Your task to perform on an android device: change the clock display to analog Image 0: 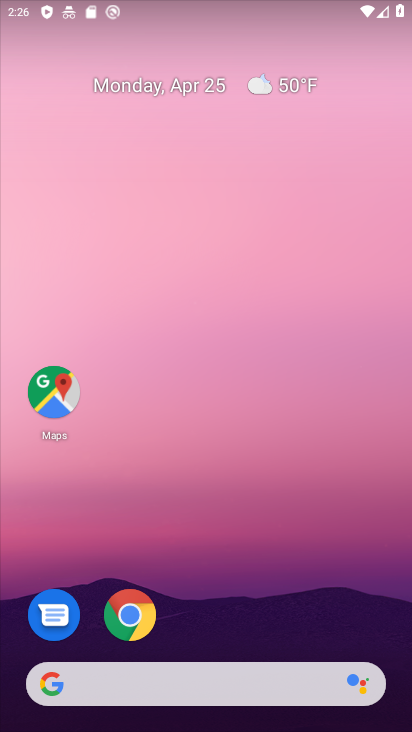
Step 0: drag from (215, 724) to (219, 306)
Your task to perform on an android device: change the clock display to analog Image 1: 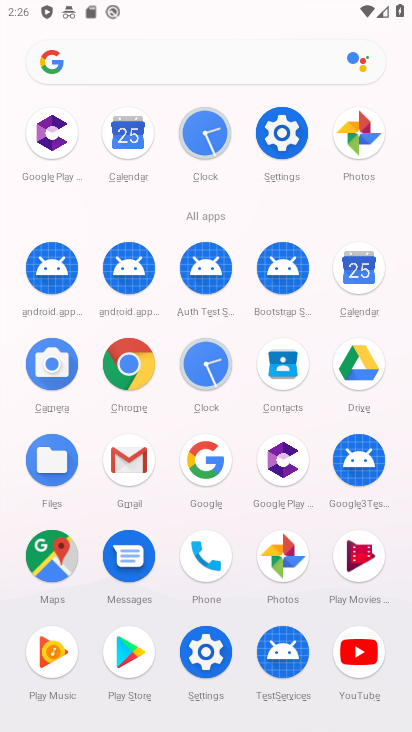
Step 1: click (205, 365)
Your task to perform on an android device: change the clock display to analog Image 2: 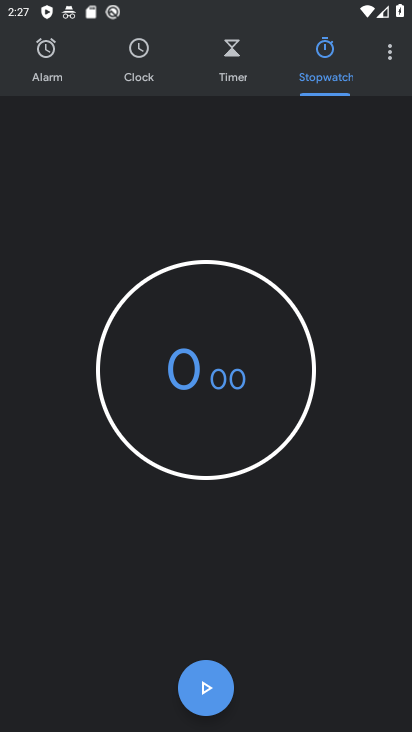
Step 2: click (390, 54)
Your task to perform on an android device: change the clock display to analog Image 3: 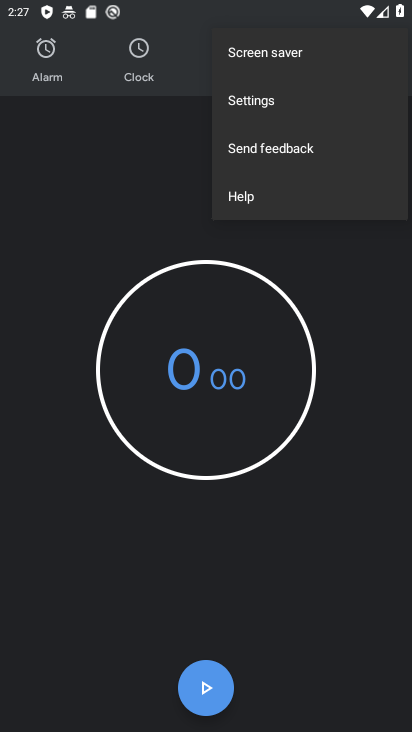
Step 3: click (239, 103)
Your task to perform on an android device: change the clock display to analog Image 4: 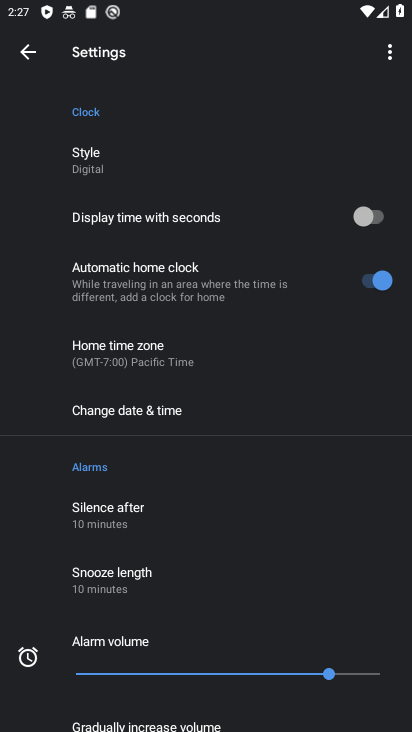
Step 4: click (86, 158)
Your task to perform on an android device: change the clock display to analog Image 5: 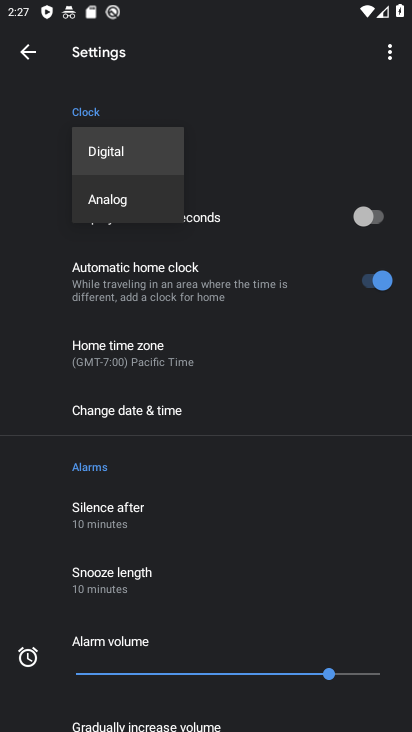
Step 5: click (104, 196)
Your task to perform on an android device: change the clock display to analog Image 6: 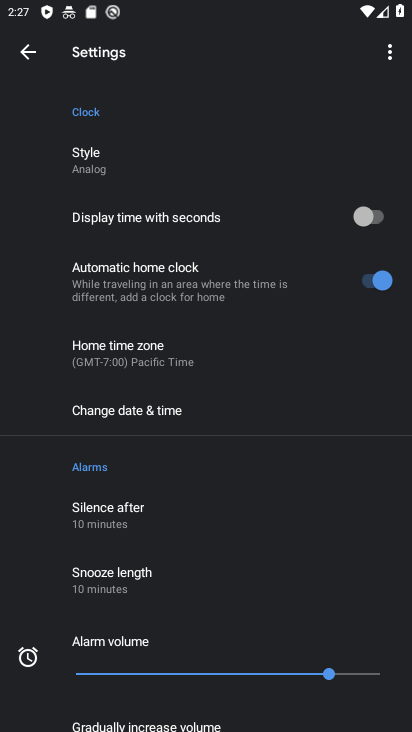
Step 6: task complete